Your task to perform on an android device: turn off sleep mode Image 0: 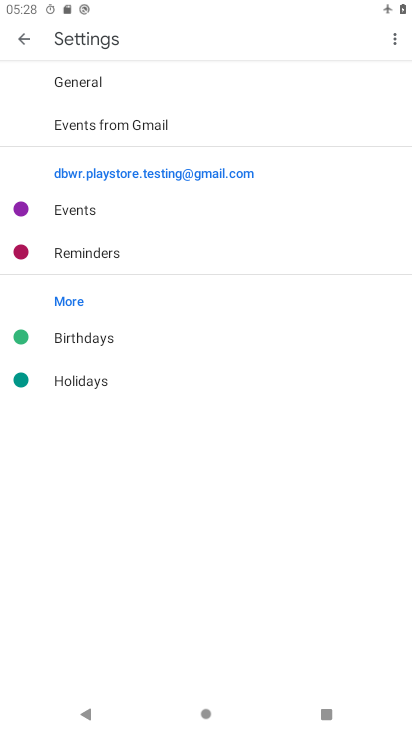
Step 0: press home button
Your task to perform on an android device: turn off sleep mode Image 1: 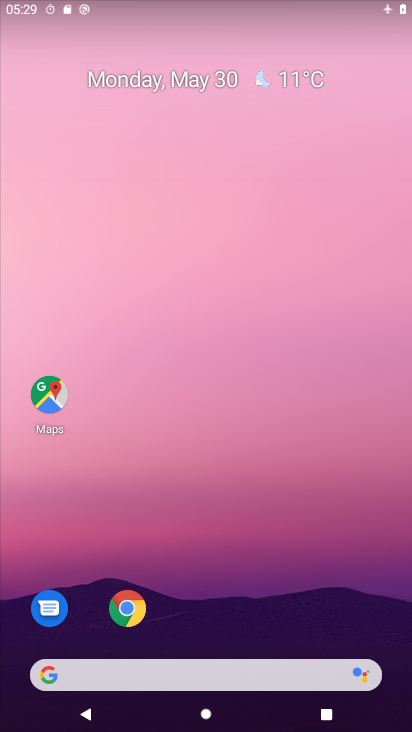
Step 1: drag from (270, 559) to (179, 44)
Your task to perform on an android device: turn off sleep mode Image 2: 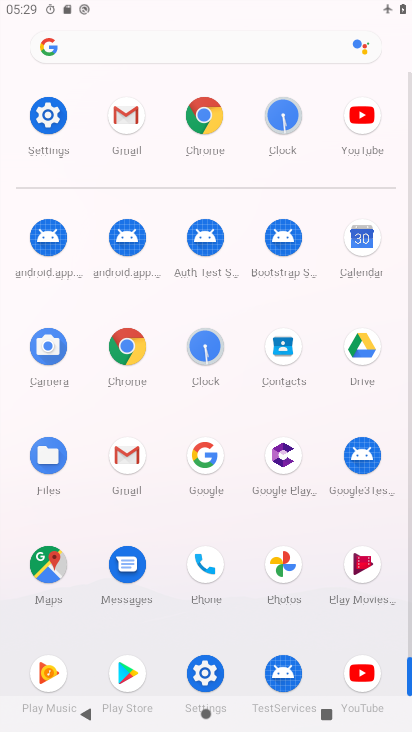
Step 2: click (44, 108)
Your task to perform on an android device: turn off sleep mode Image 3: 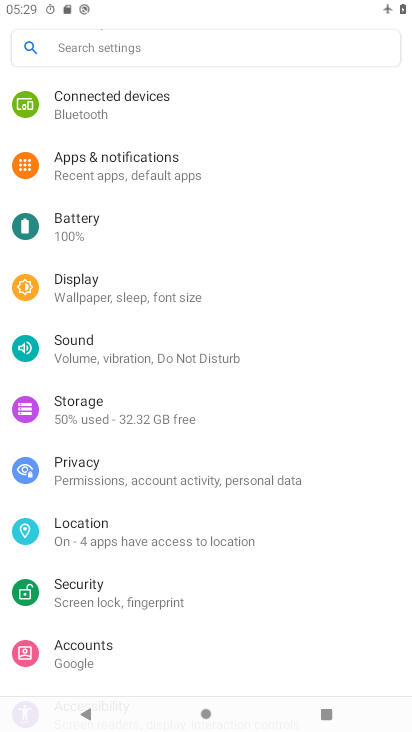
Step 3: click (156, 300)
Your task to perform on an android device: turn off sleep mode Image 4: 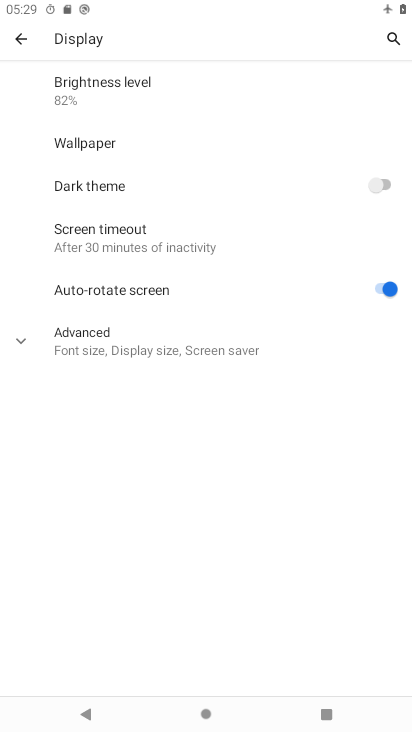
Step 4: task complete